Your task to perform on an android device: uninstall "Indeed Job Search" Image 0: 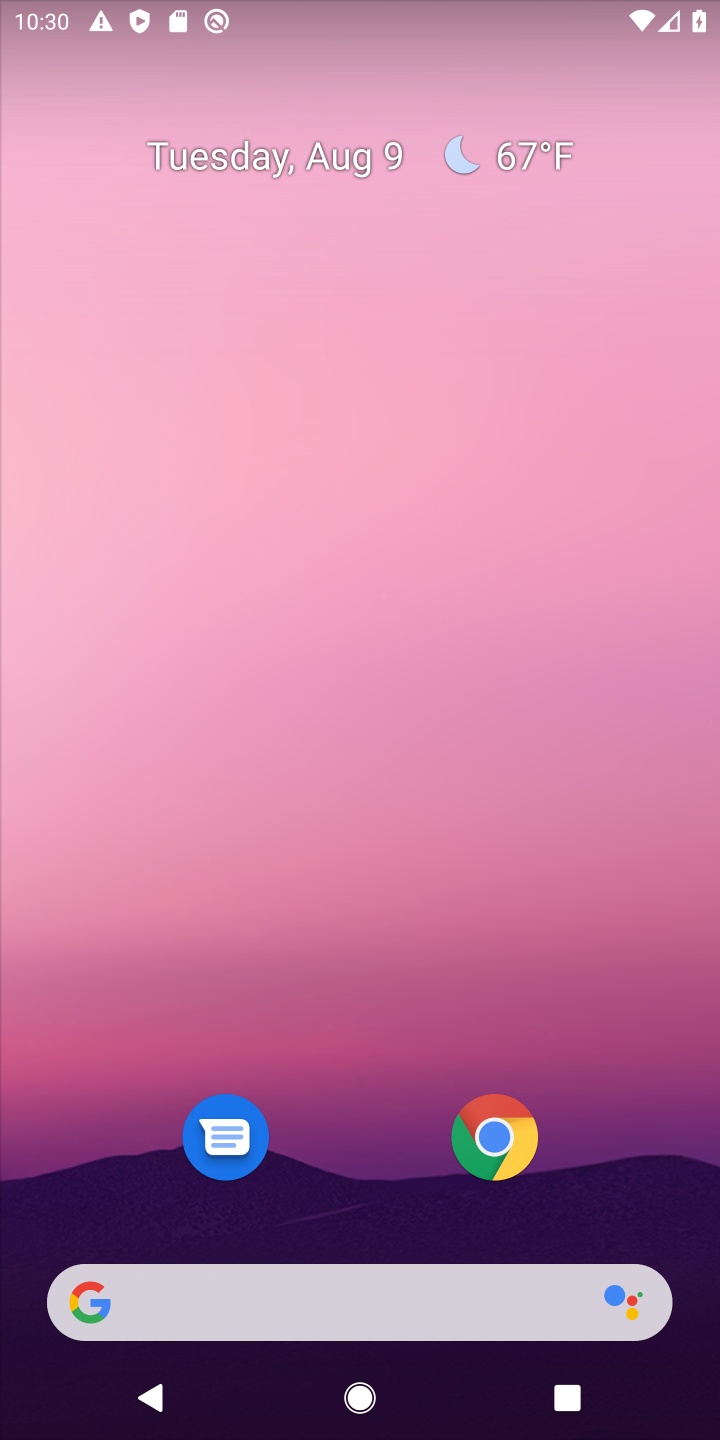
Step 0: drag from (654, 1133) to (527, 73)
Your task to perform on an android device: uninstall "Indeed Job Search" Image 1: 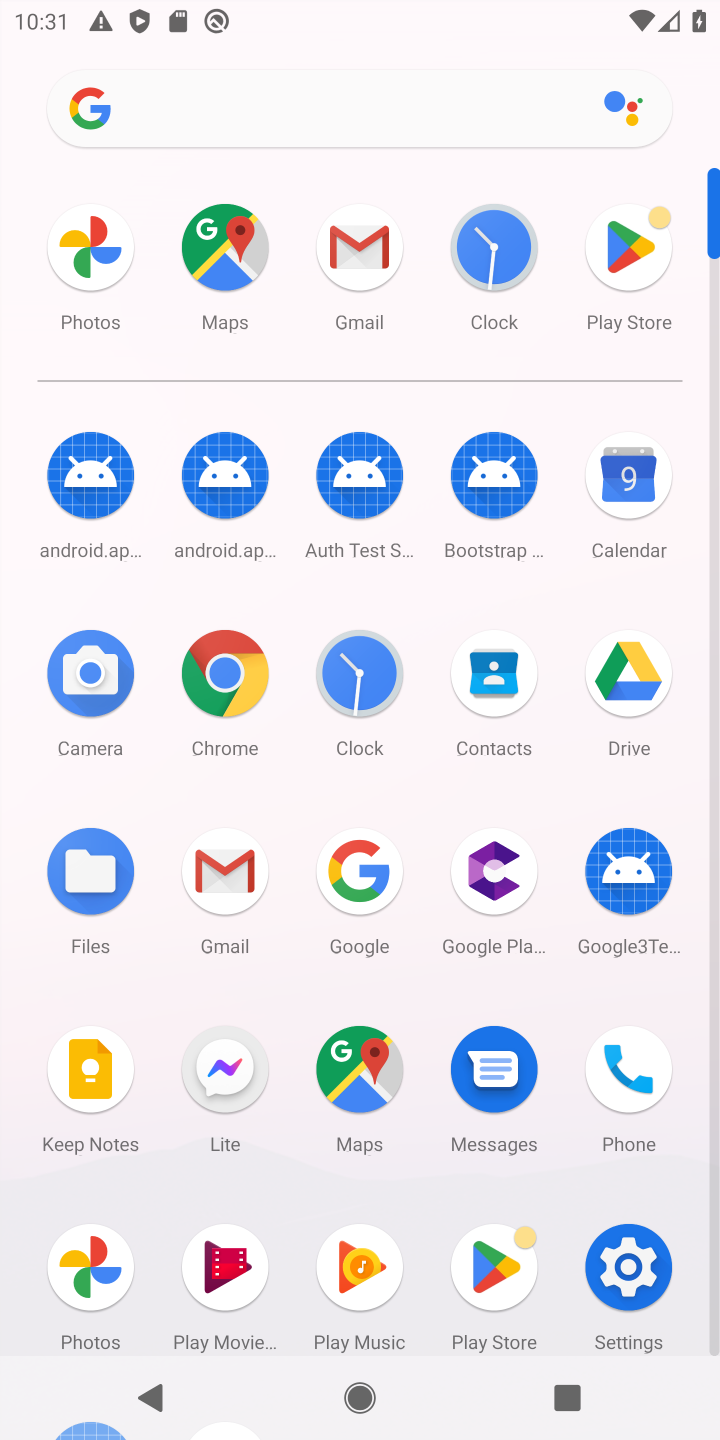
Step 1: click (623, 266)
Your task to perform on an android device: uninstall "Indeed Job Search" Image 2: 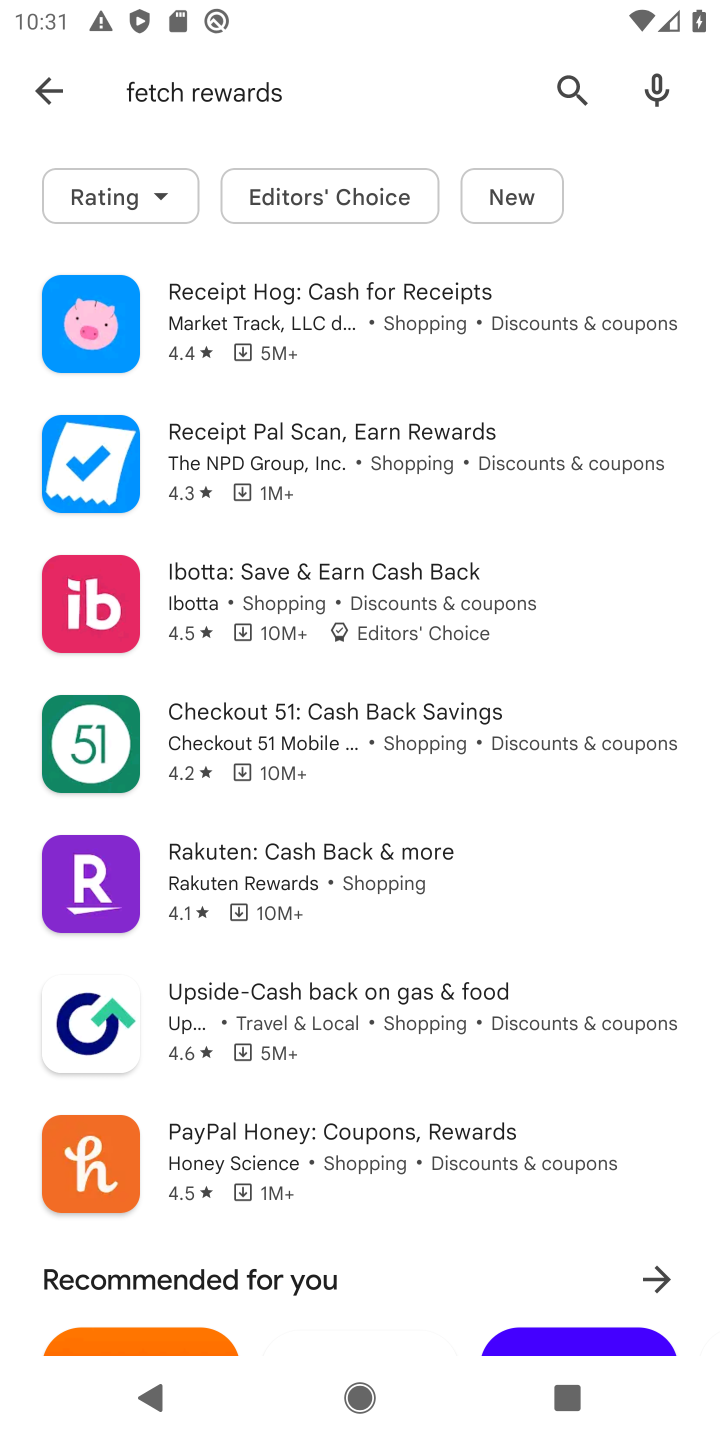
Step 2: press back button
Your task to perform on an android device: uninstall "Indeed Job Search" Image 3: 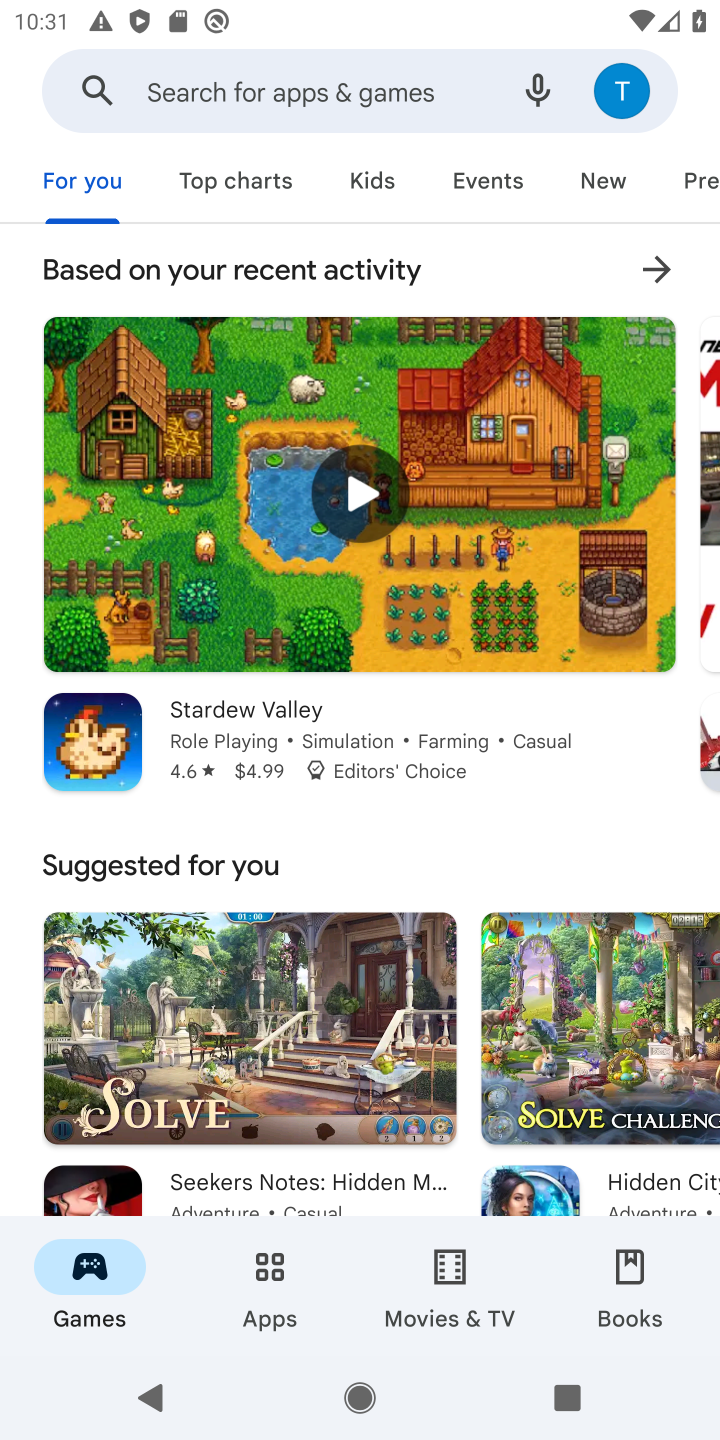
Step 3: click (212, 98)
Your task to perform on an android device: uninstall "Indeed Job Search" Image 4: 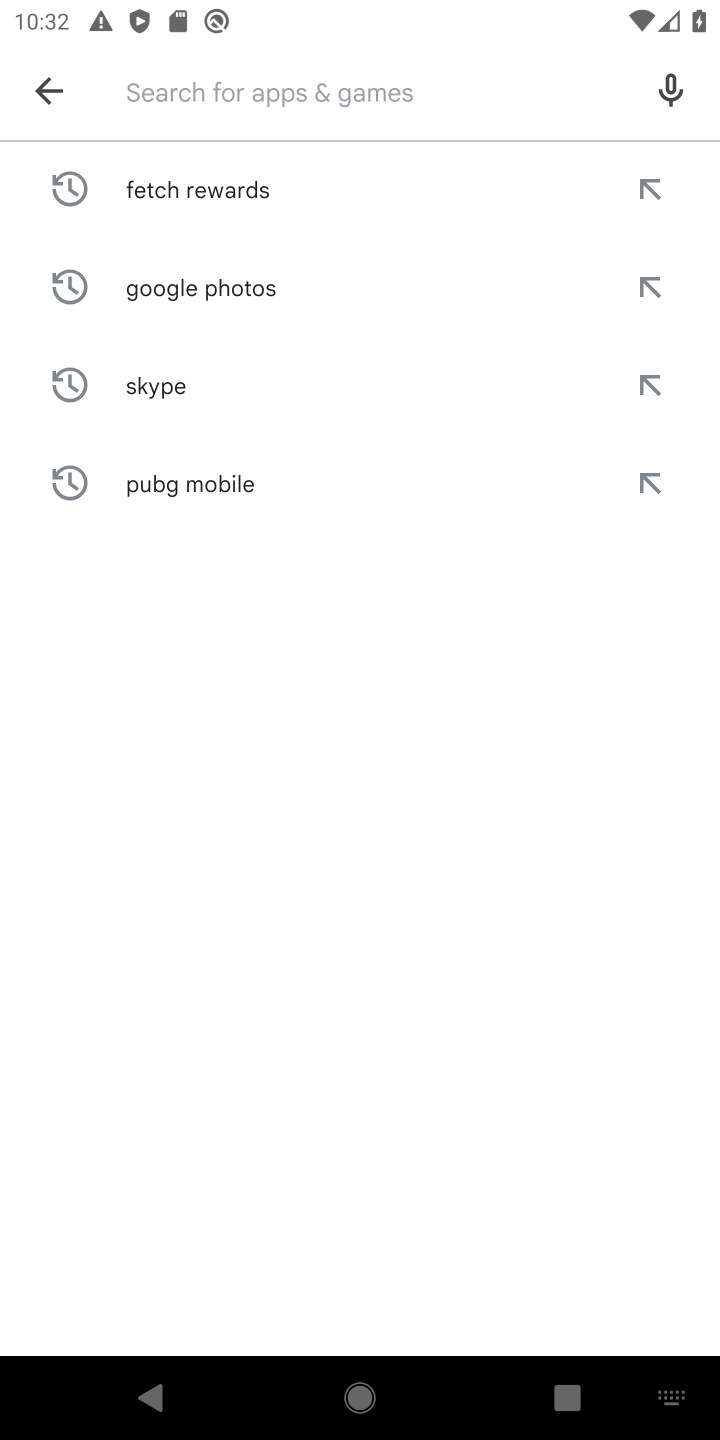
Step 4: type "Indeed Job Search"
Your task to perform on an android device: uninstall "Indeed Job Search" Image 5: 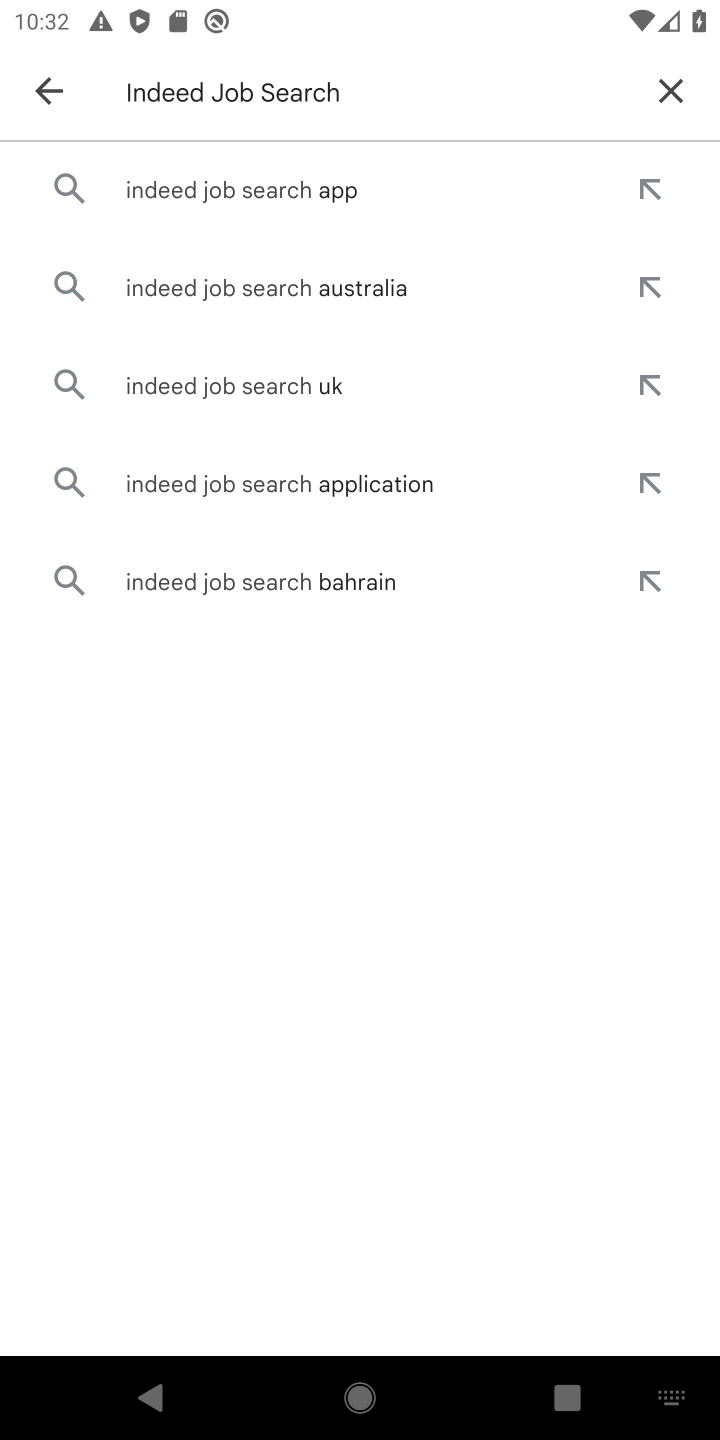
Step 5: click (246, 189)
Your task to perform on an android device: uninstall "Indeed Job Search" Image 6: 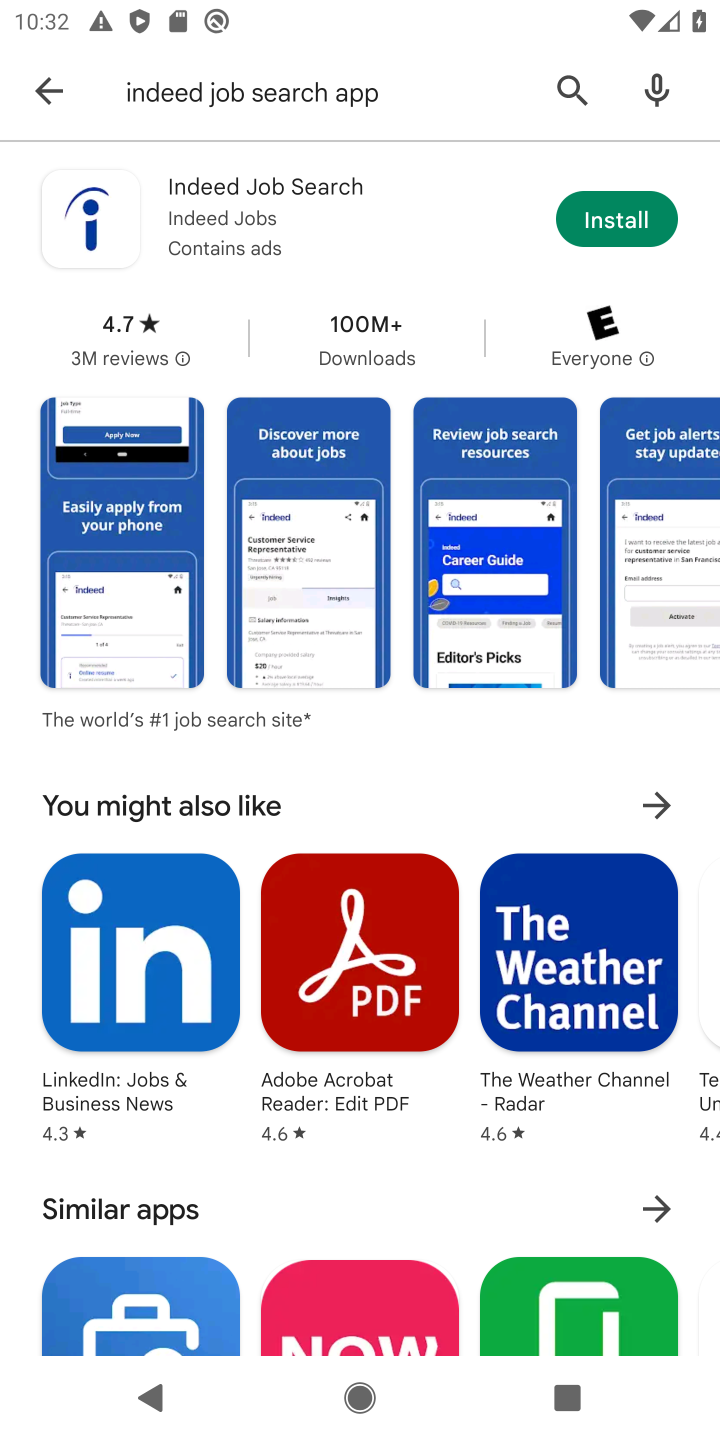
Step 6: task complete